Your task to perform on an android device: Open the map Image 0: 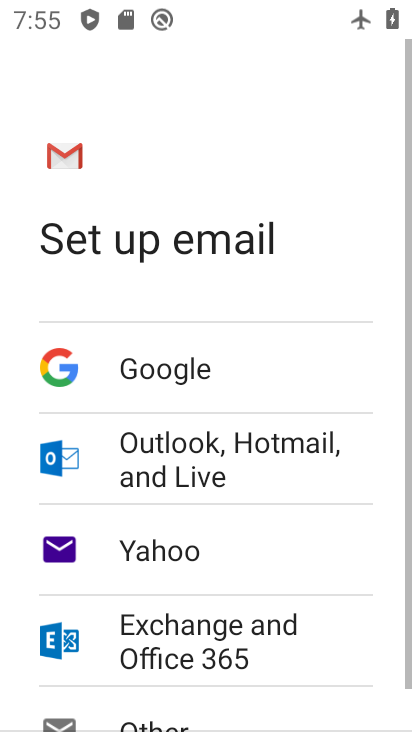
Step 0: press home button
Your task to perform on an android device: Open the map Image 1: 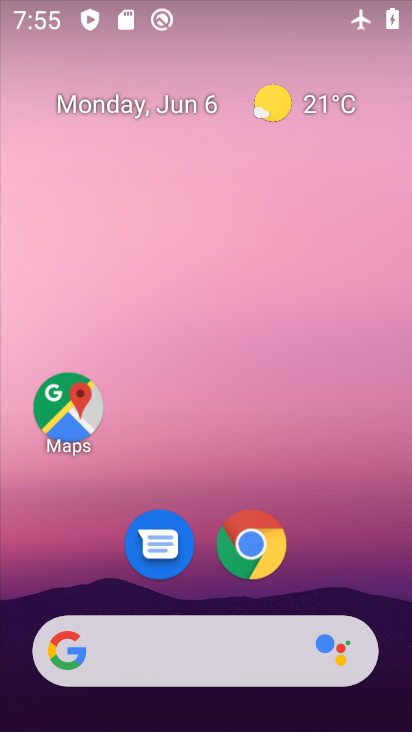
Step 1: click (62, 378)
Your task to perform on an android device: Open the map Image 2: 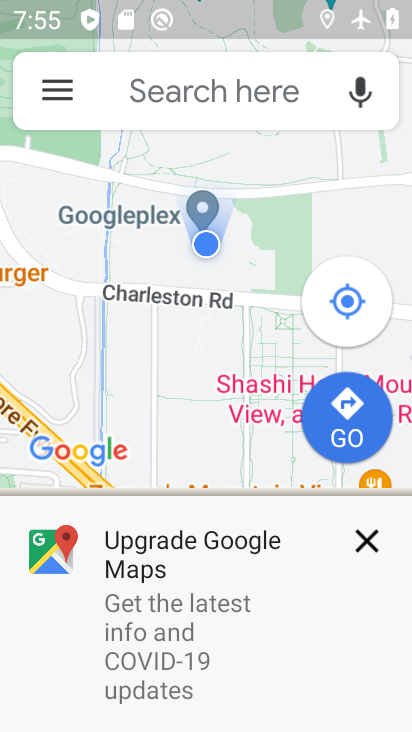
Step 2: click (366, 539)
Your task to perform on an android device: Open the map Image 3: 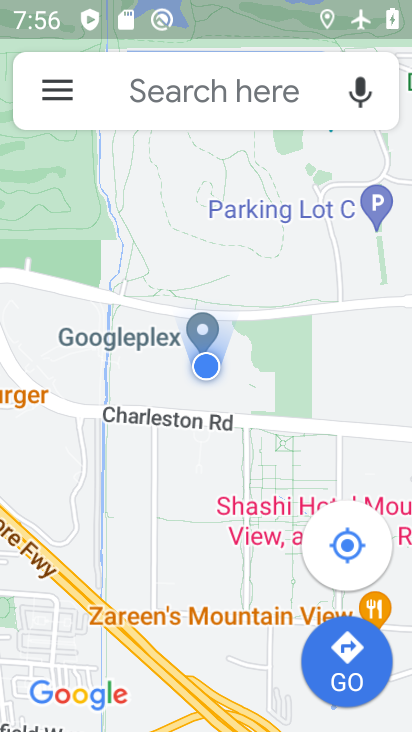
Step 3: task complete